Your task to perform on an android device: Search for vegetarian restaurants on Maps Image 0: 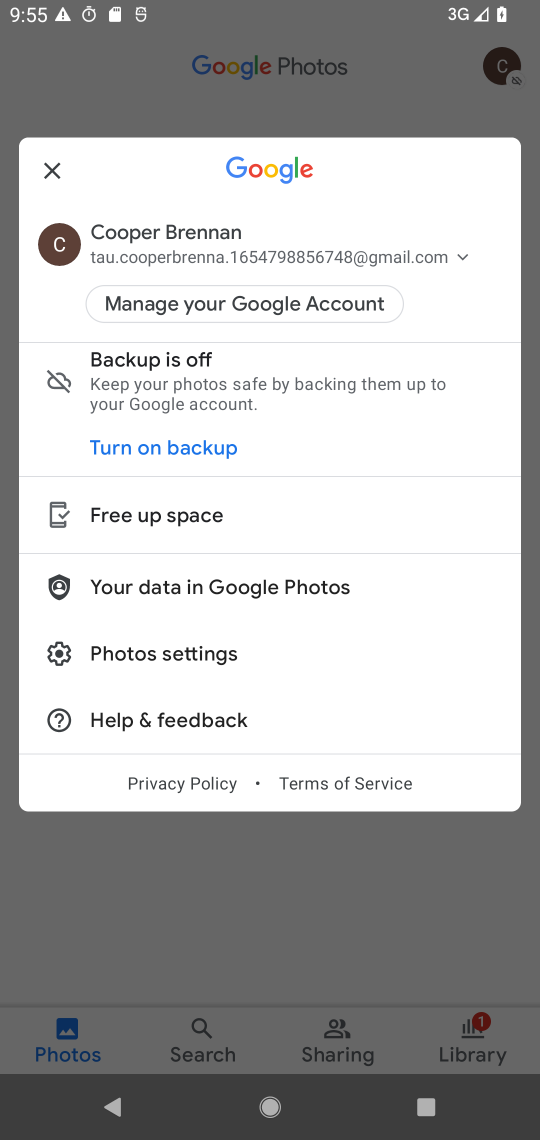
Step 0: press home button
Your task to perform on an android device: Search for vegetarian restaurants on Maps Image 1: 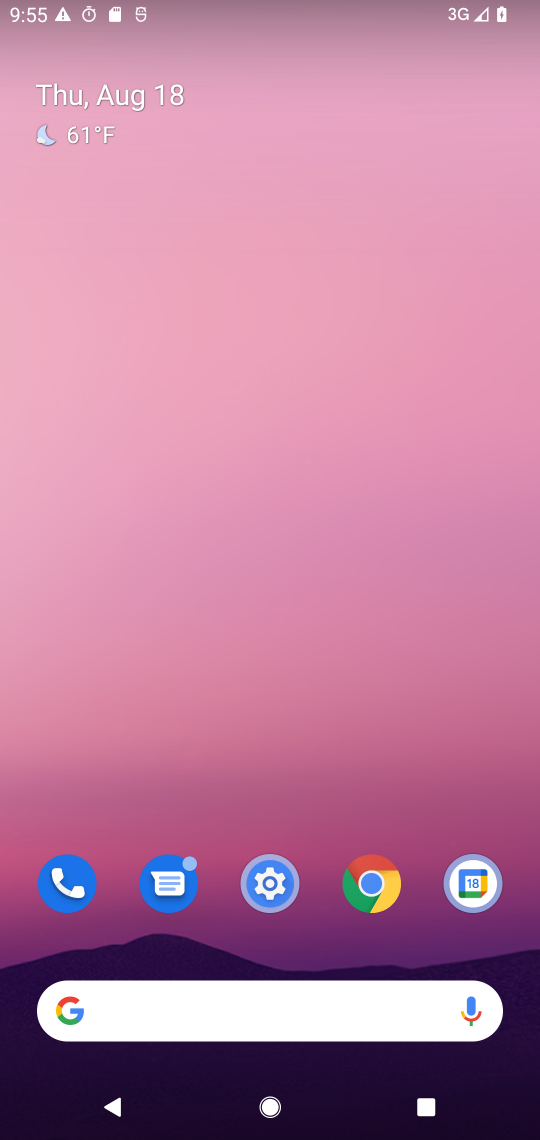
Step 1: drag from (47, 1052) to (269, 196)
Your task to perform on an android device: Search for vegetarian restaurants on Maps Image 2: 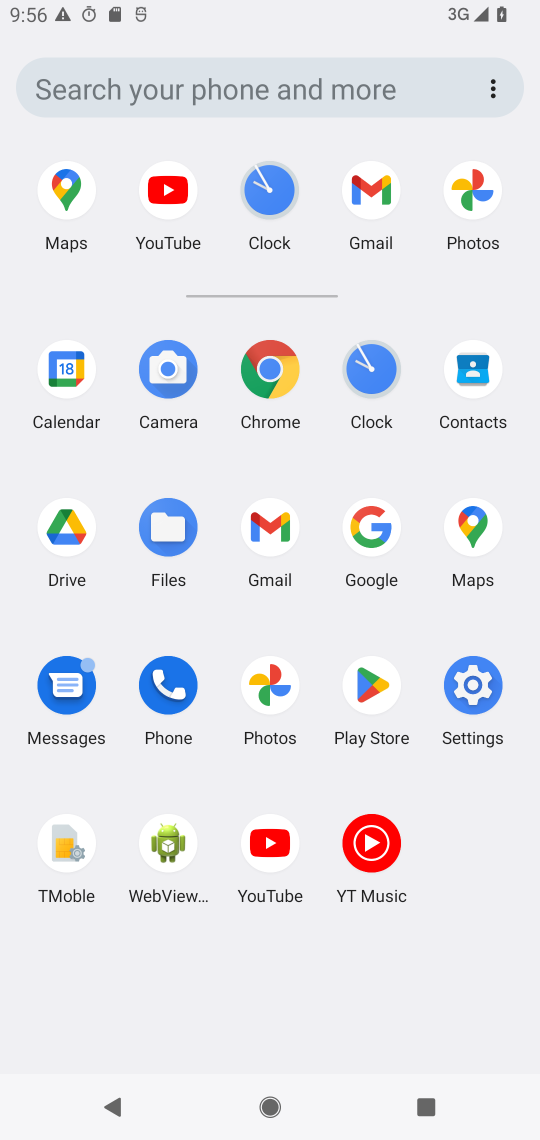
Step 2: click (462, 522)
Your task to perform on an android device: Search for vegetarian restaurants on Maps Image 3: 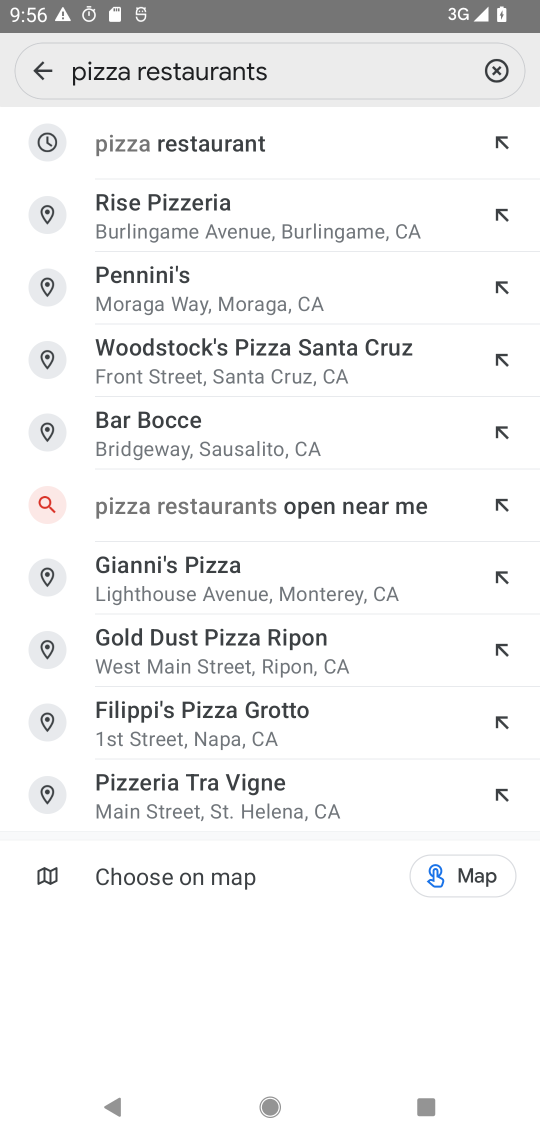
Step 3: press back button
Your task to perform on an android device: Search for vegetarian restaurants on Maps Image 4: 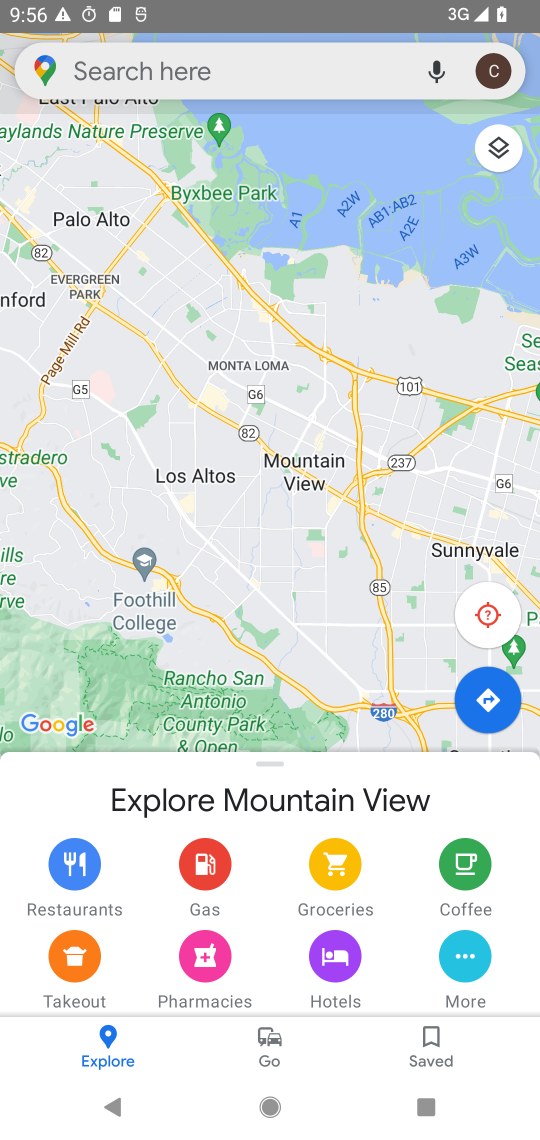
Step 4: click (111, 70)
Your task to perform on an android device: Search for vegetarian restaurants on Maps Image 5: 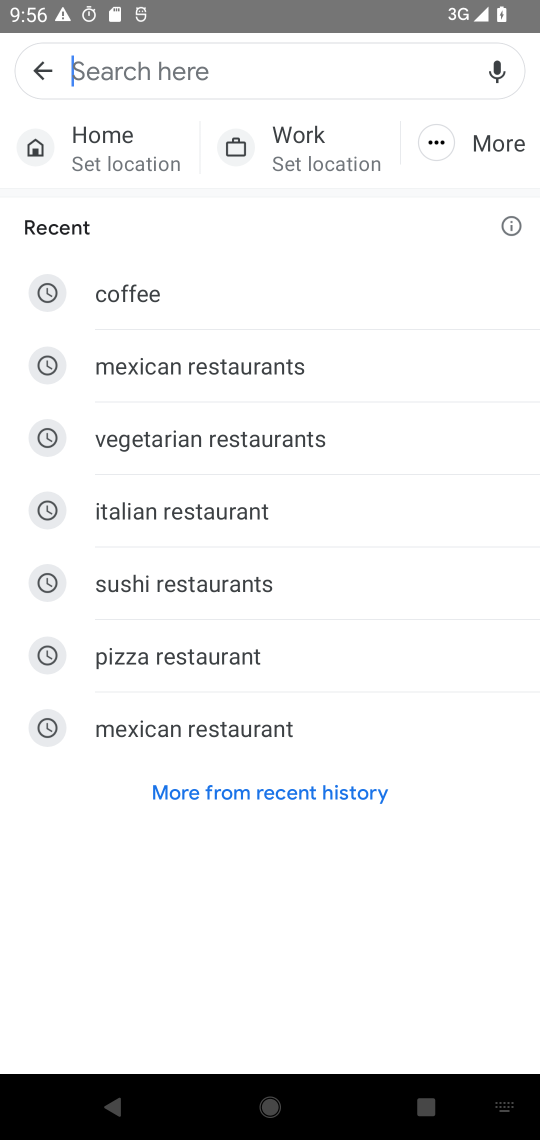
Step 5: click (165, 440)
Your task to perform on an android device: Search for vegetarian restaurants on Maps Image 6: 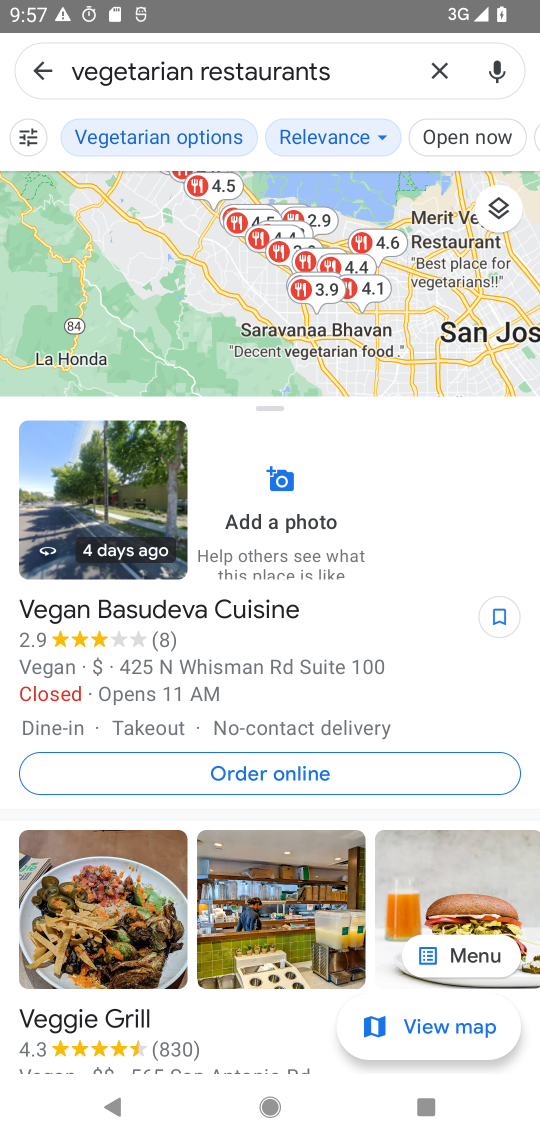
Step 6: task complete